Your task to perform on an android device: add a label to a message in the gmail app Image 0: 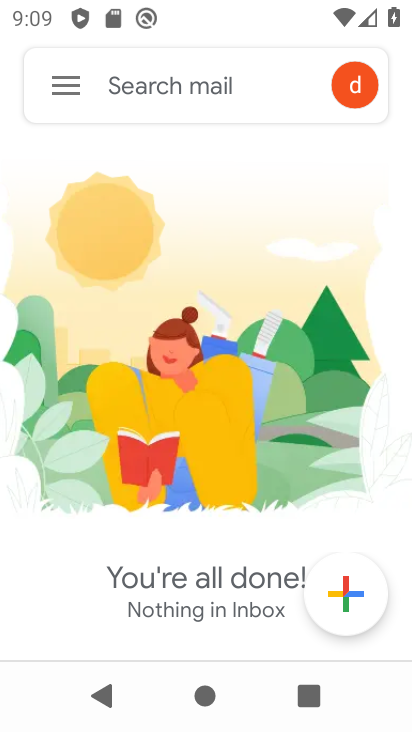
Step 0: press back button
Your task to perform on an android device: add a label to a message in the gmail app Image 1: 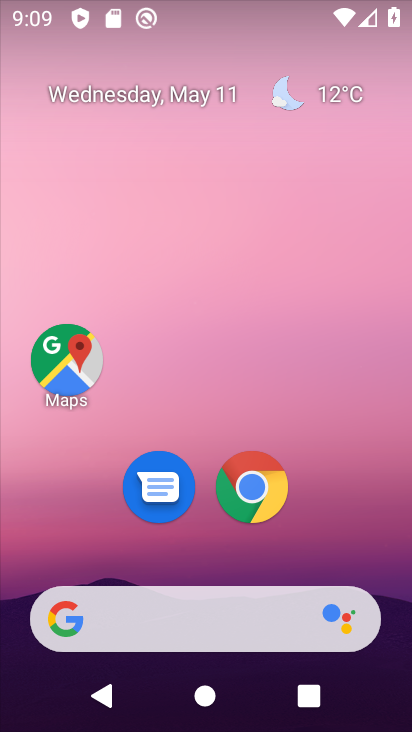
Step 1: drag from (312, 518) to (226, 52)
Your task to perform on an android device: add a label to a message in the gmail app Image 2: 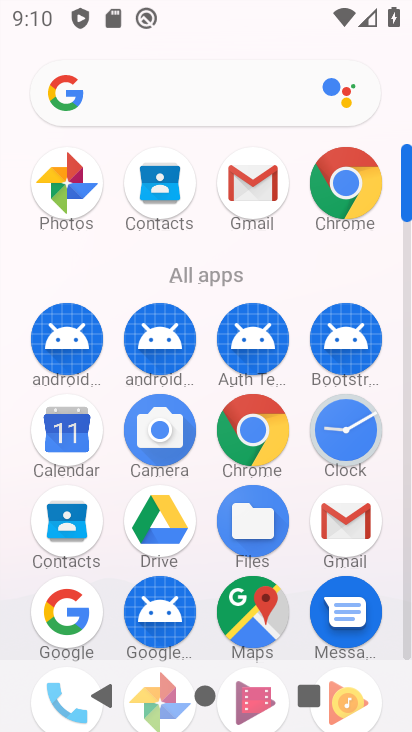
Step 2: click (251, 184)
Your task to perform on an android device: add a label to a message in the gmail app Image 3: 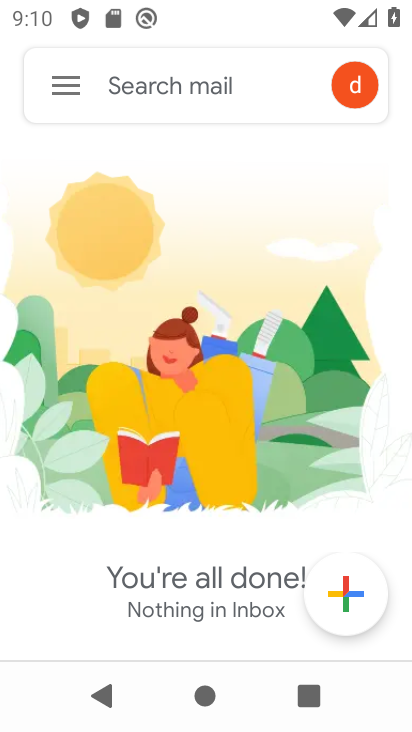
Step 3: click (59, 81)
Your task to perform on an android device: add a label to a message in the gmail app Image 4: 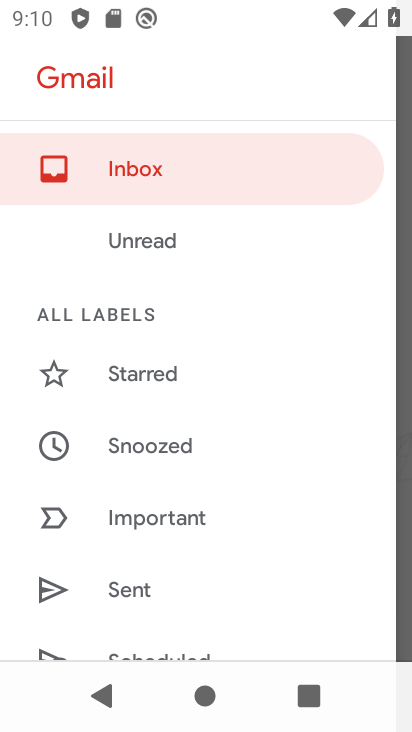
Step 4: drag from (179, 462) to (219, 365)
Your task to perform on an android device: add a label to a message in the gmail app Image 5: 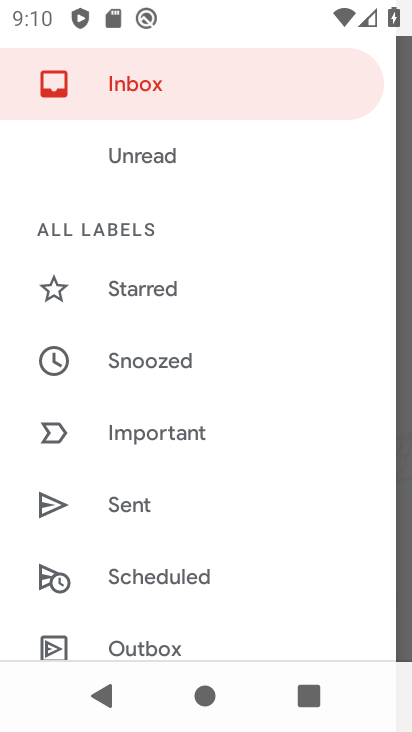
Step 5: drag from (183, 475) to (216, 380)
Your task to perform on an android device: add a label to a message in the gmail app Image 6: 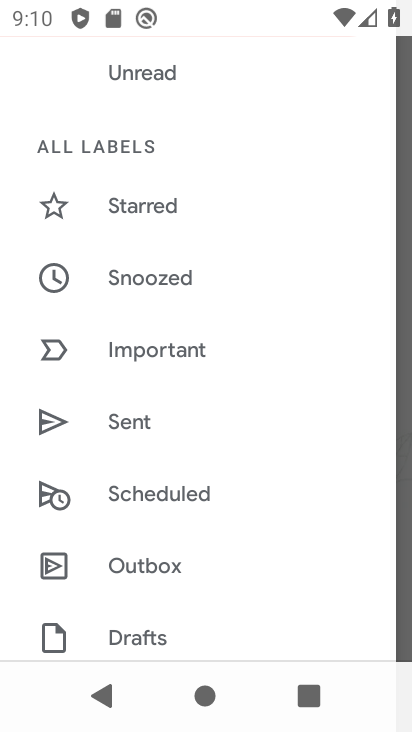
Step 6: drag from (172, 469) to (198, 357)
Your task to perform on an android device: add a label to a message in the gmail app Image 7: 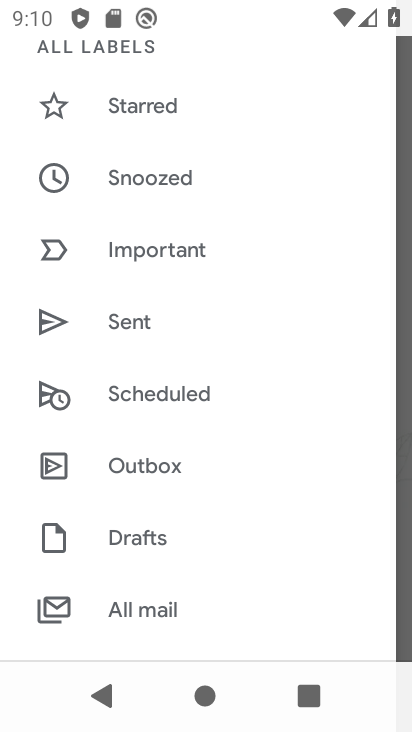
Step 7: drag from (126, 556) to (188, 449)
Your task to perform on an android device: add a label to a message in the gmail app Image 8: 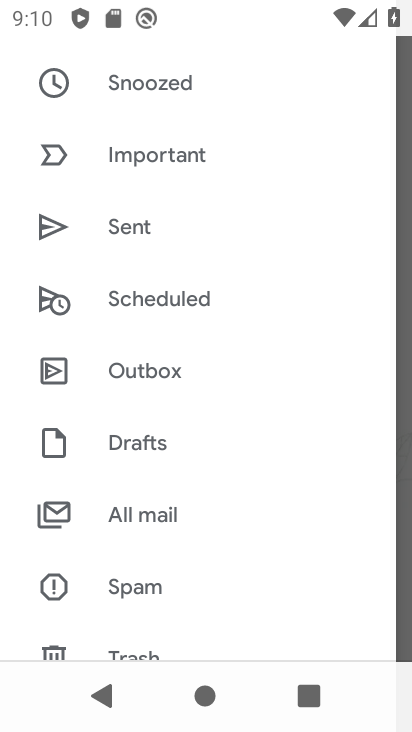
Step 8: click (158, 513)
Your task to perform on an android device: add a label to a message in the gmail app Image 9: 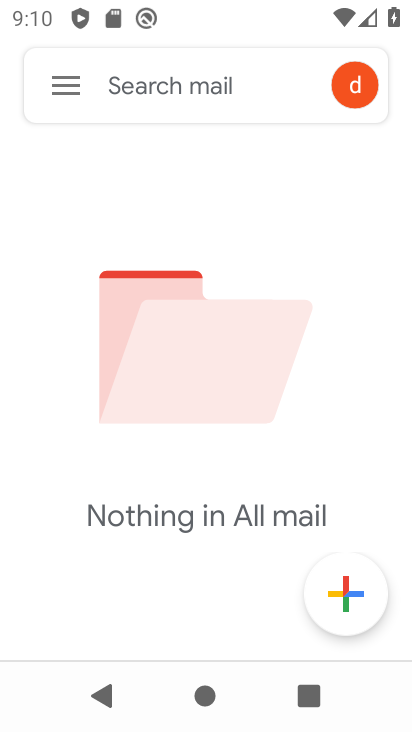
Step 9: click (73, 86)
Your task to perform on an android device: add a label to a message in the gmail app Image 10: 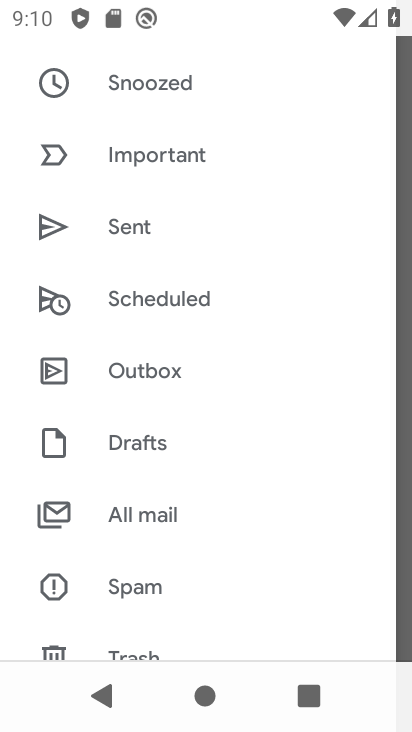
Step 10: drag from (147, 209) to (177, 319)
Your task to perform on an android device: add a label to a message in the gmail app Image 11: 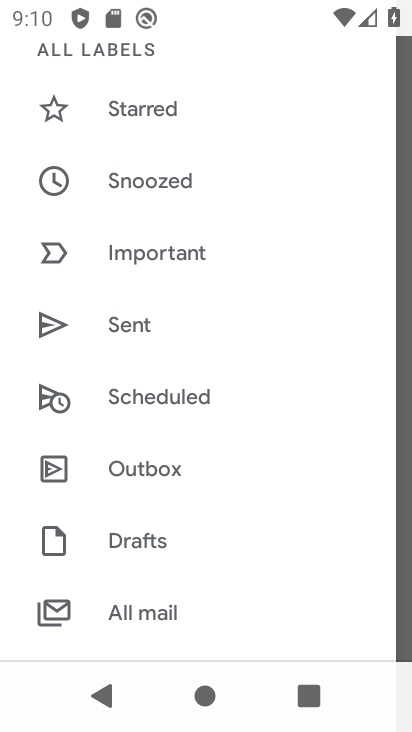
Step 11: click (128, 179)
Your task to perform on an android device: add a label to a message in the gmail app Image 12: 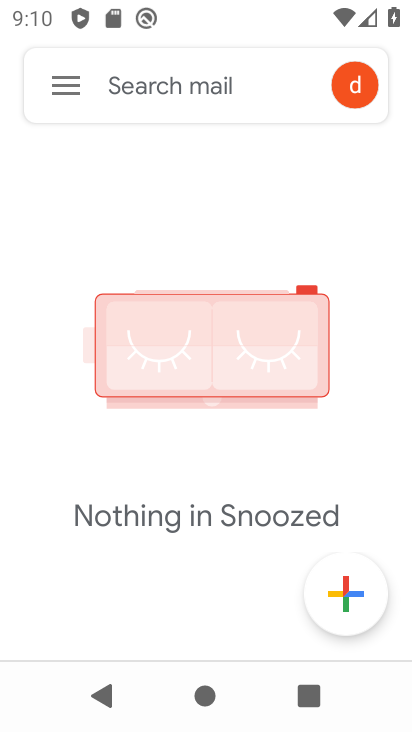
Step 12: click (67, 87)
Your task to perform on an android device: add a label to a message in the gmail app Image 13: 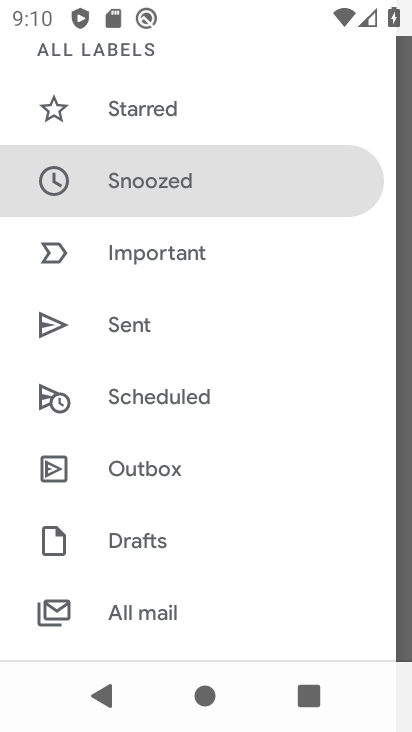
Step 13: task complete